Your task to perform on an android device: open wifi settings Image 0: 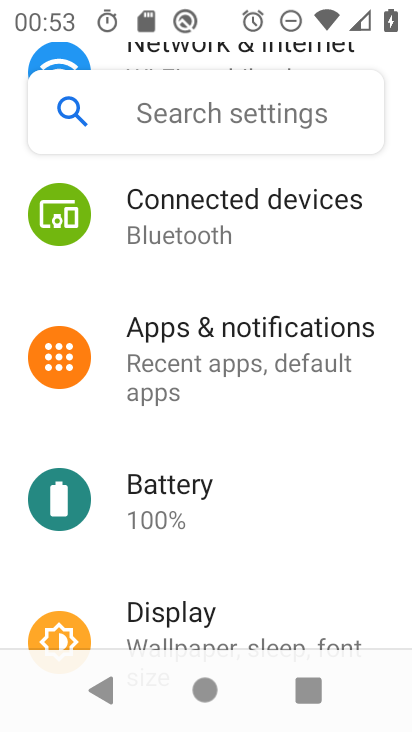
Step 0: drag from (260, 346) to (332, 585)
Your task to perform on an android device: open wifi settings Image 1: 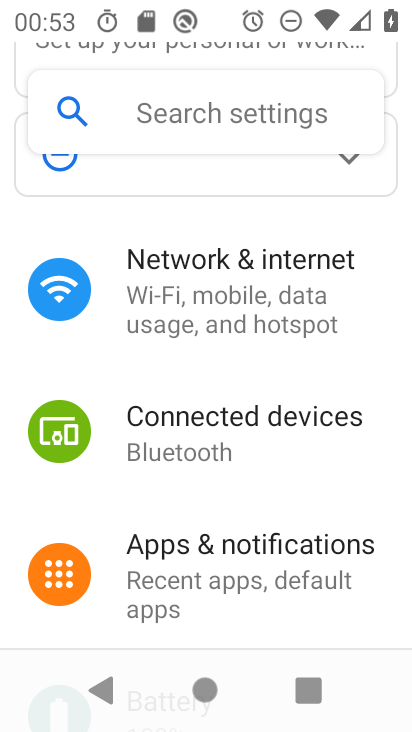
Step 1: click (284, 307)
Your task to perform on an android device: open wifi settings Image 2: 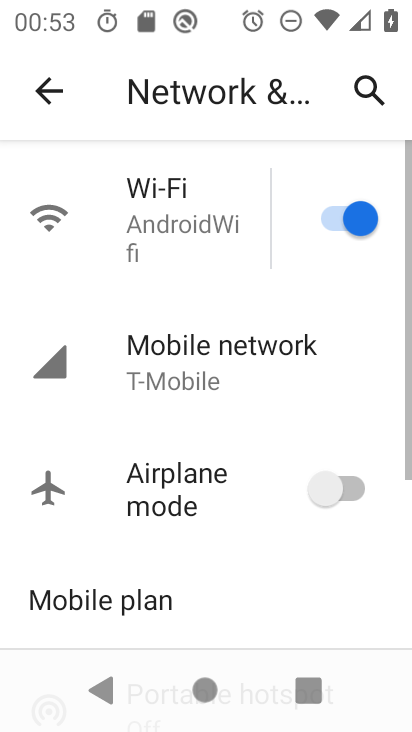
Step 2: click (119, 238)
Your task to perform on an android device: open wifi settings Image 3: 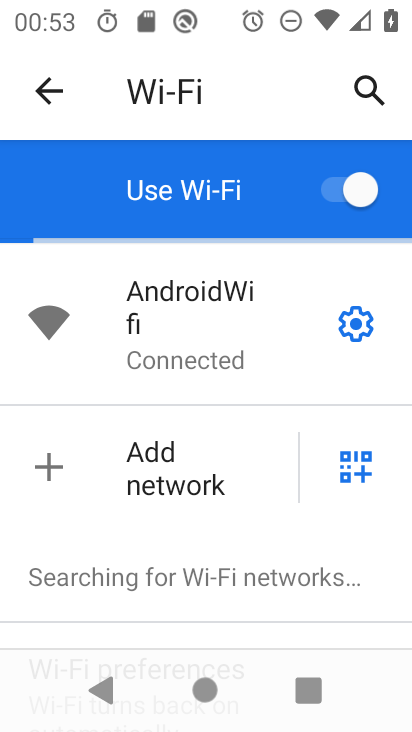
Step 3: task complete